Your task to perform on an android device: Turn on the flashlight Image 0: 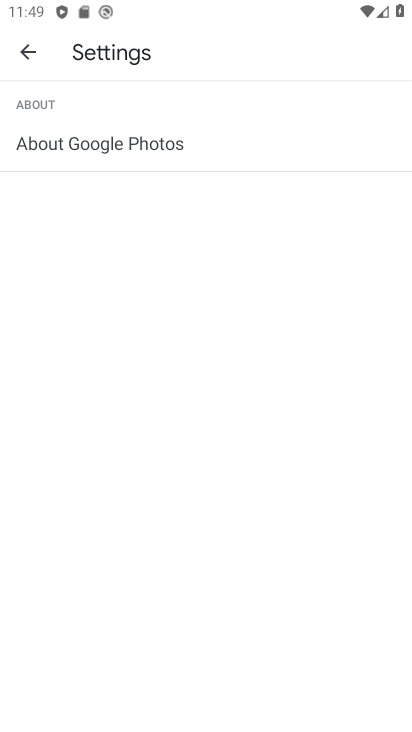
Step 0: press home button
Your task to perform on an android device: Turn on the flashlight Image 1: 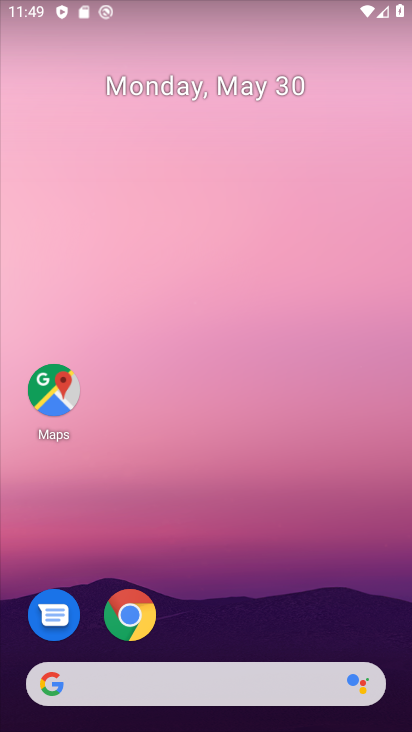
Step 1: drag from (177, 628) to (357, 18)
Your task to perform on an android device: Turn on the flashlight Image 2: 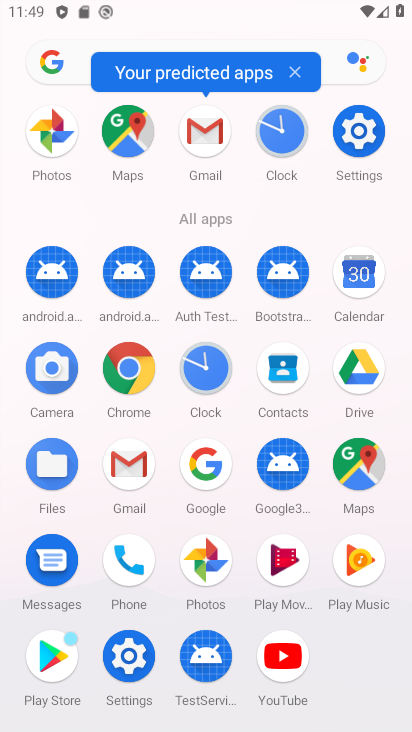
Step 2: click (367, 148)
Your task to perform on an android device: Turn on the flashlight Image 3: 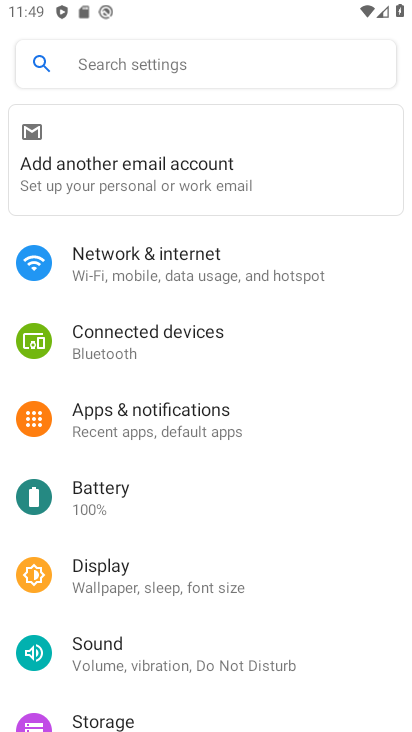
Step 3: click (216, 61)
Your task to perform on an android device: Turn on the flashlight Image 4: 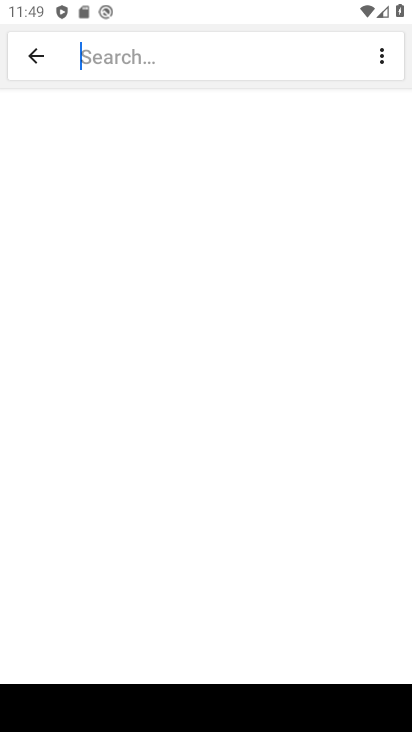
Step 4: type "flashlight"
Your task to perform on an android device: Turn on the flashlight Image 5: 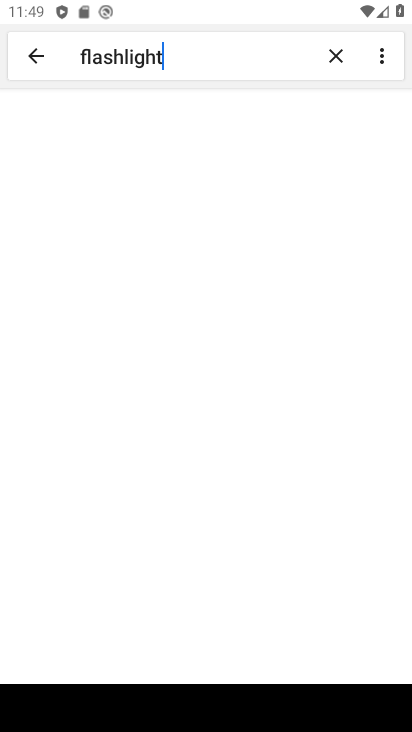
Step 5: click (171, 136)
Your task to perform on an android device: Turn on the flashlight Image 6: 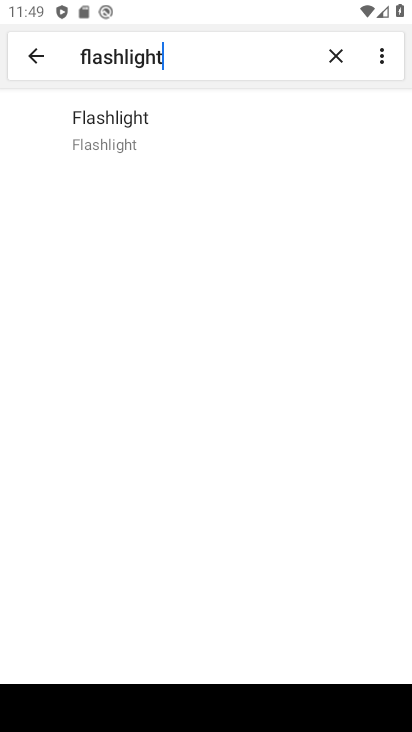
Step 6: click (171, 136)
Your task to perform on an android device: Turn on the flashlight Image 7: 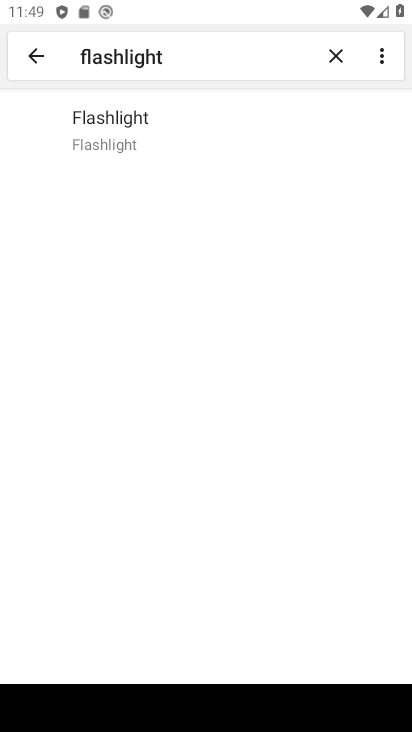
Step 7: click (171, 136)
Your task to perform on an android device: Turn on the flashlight Image 8: 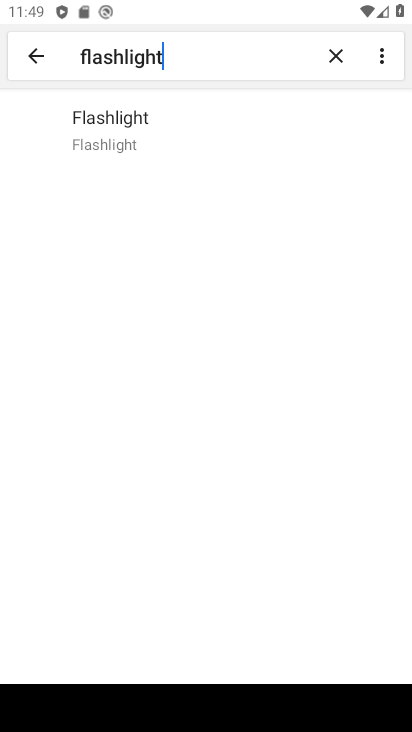
Step 8: task complete